Your task to perform on an android device: Go to Wikipedia Image 0: 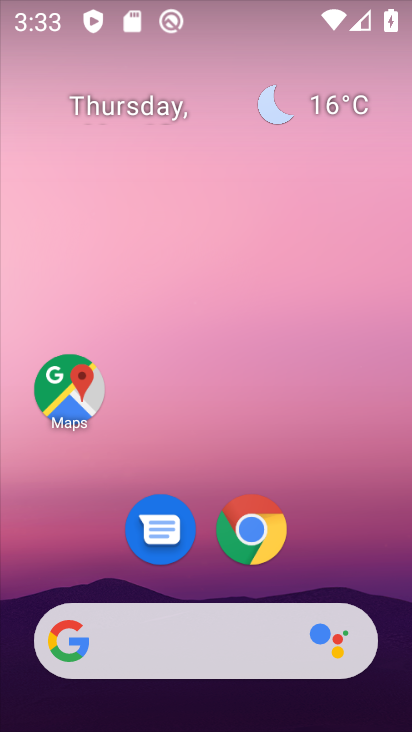
Step 0: click (344, 591)
Your task to perform on an android device: Go to Wikipedia Image 1: 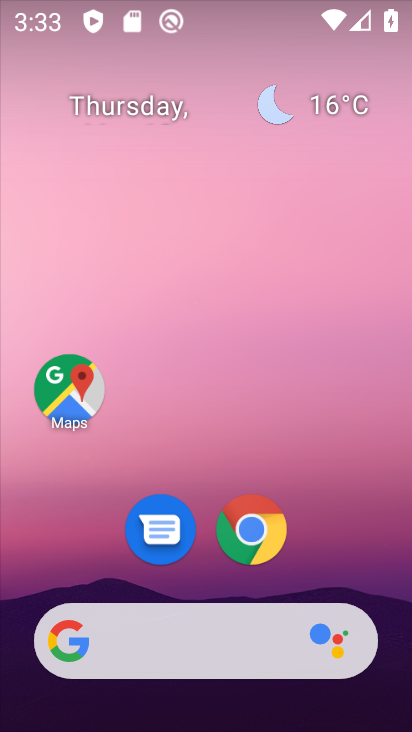
Step 1: click (245, 511)
Your task to perform on an android device: Go to Wikipedia Image 2: 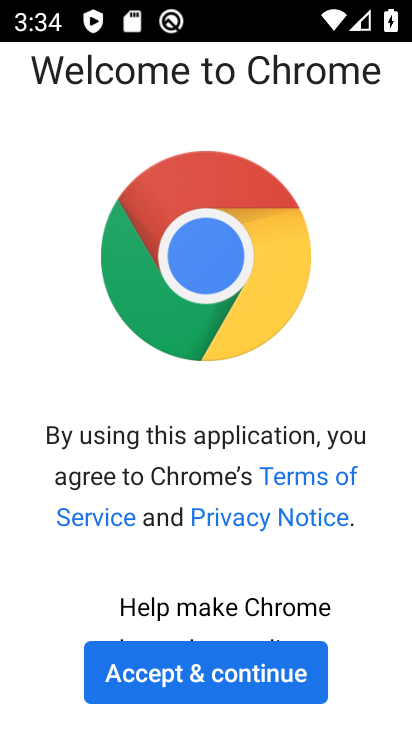
Step 2: click (246, 641)
Your task to perform on an android device: Go to Wikipedia Image 3: 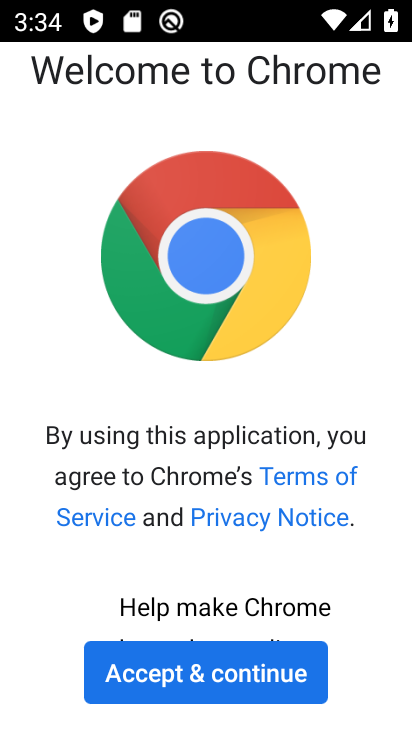
Step 3: click (252, 658)
Your task to perform on an android device: Go to Wikipedia Image 4: 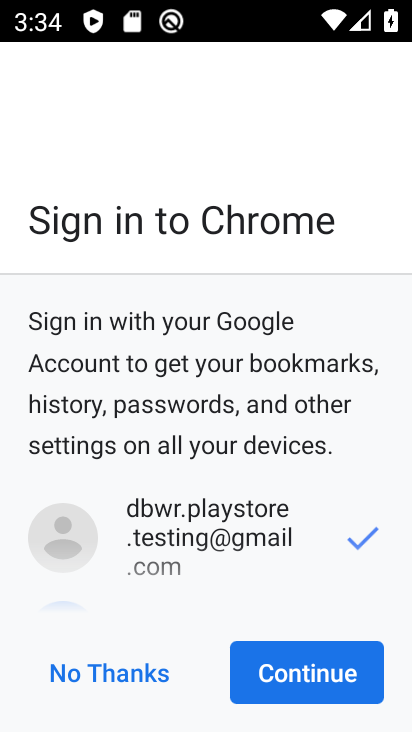
Step 4: click (291, 681)
Your task to perform on an android device: Go to Wikipedia Image 5: 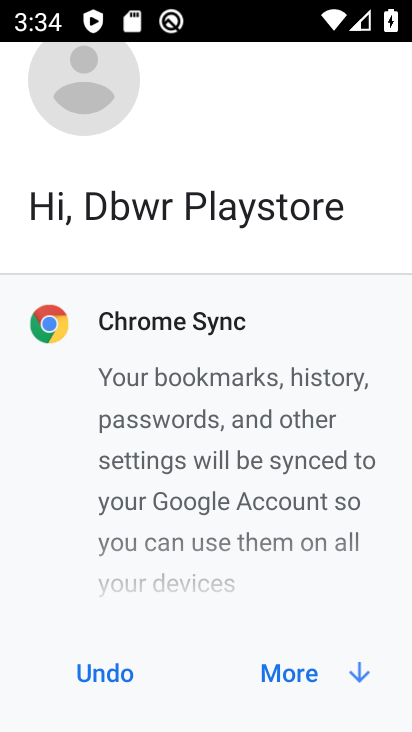
Step 5: click (291, 681)
Your task to perform on an android device: Go to Wikipedia Image 6: 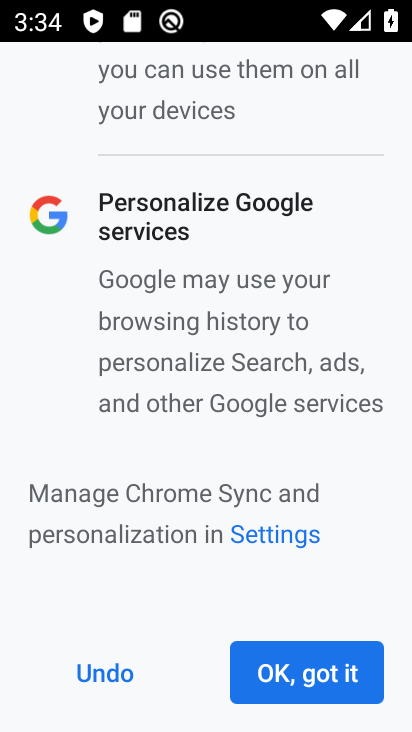
Step 6: click (291, 681)
Your task to perform on an android device: Go to Wikipedia Image 7: 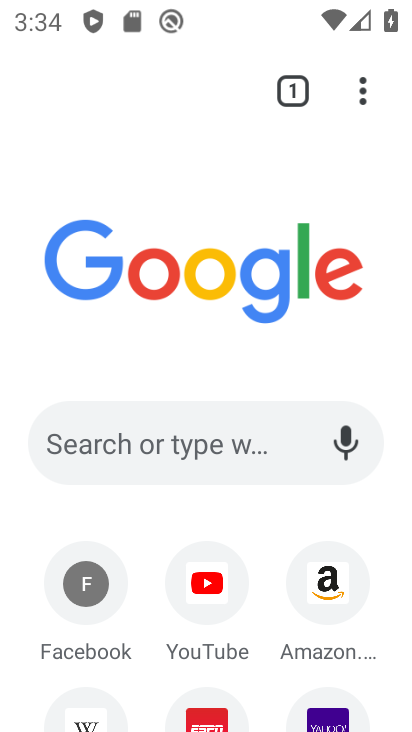
Step 7: click (74, 714)
Your task to perform on an android device: Go to Wikipedia Image 8: 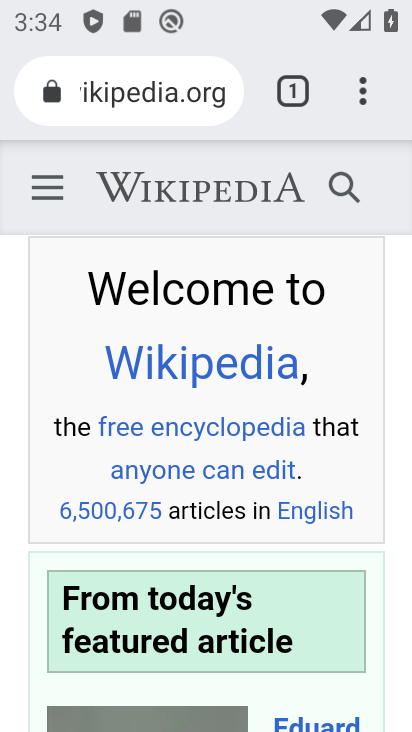
Step 8: task complete